Your task to perform on an android device: Open Chrome and go to settings Image 0: 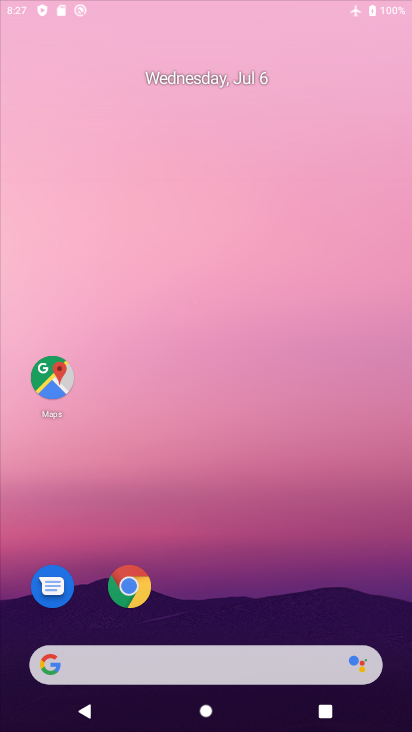
Step 0: drag from (278, 562) to (194, 61)
Your task to perform on an android device: Open Chrome and go to settings Image 1: 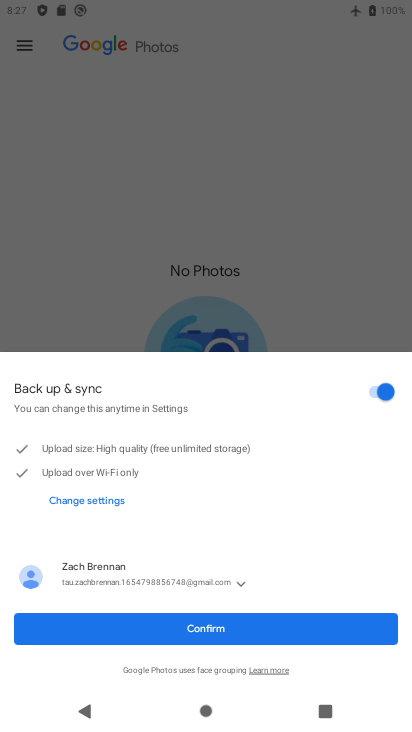
Step 1: click (222, 623)
Your task to perform on an android device: Open Chrome and go to settings Image 2: 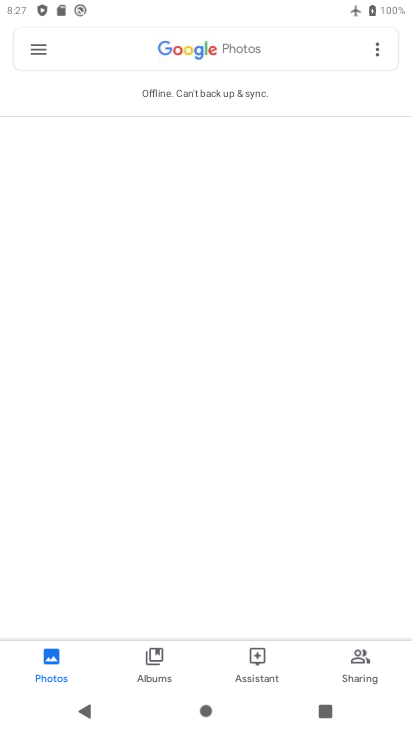
Step 2: press home button
Your task to perform on an android device: Open Chrome and go to settings Image 3: 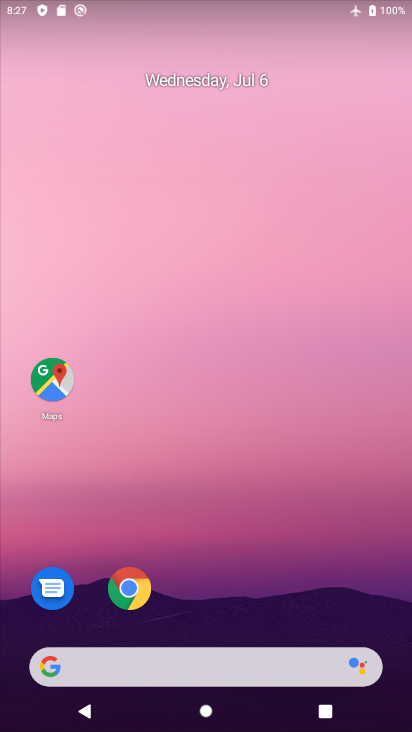
Step 3: click (137, 595)
Your task to perform on an android device: Open Chrome and go to settings Image 4: 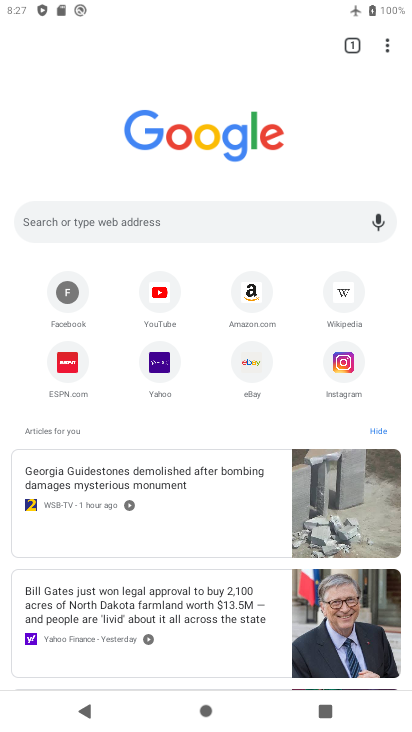
Step 4: click (386, 42)
Your task to perform on an android device: Open Chrome and go to settings Image 5: 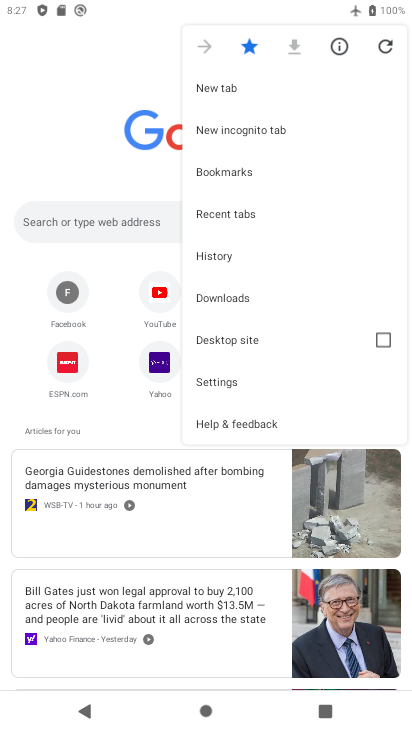
Step 5: click (216, 374)
Your task to perform on an android device: Open Chrome and go to settings Image 6: 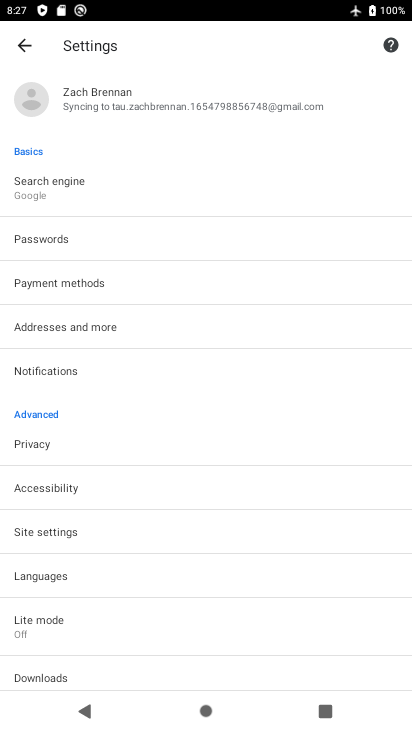
Step 6: task complete